Your task to perform on an android device: Show me popular games on the Play Store Image 0: 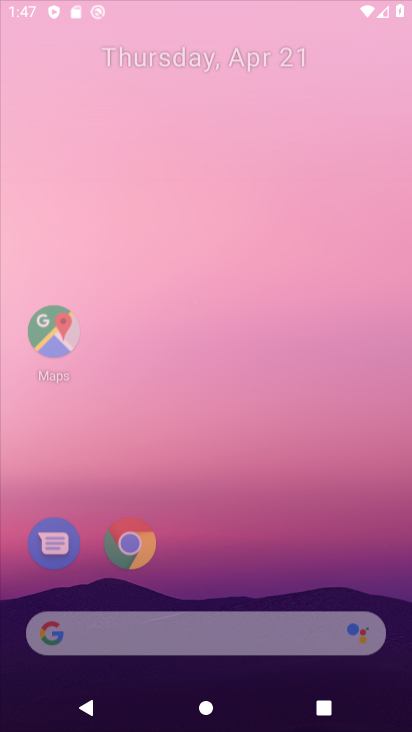
Step 0: drag from (199, 512) to (337, 171)
Your task to perform on an android device: Show me popular games on the Play Store Image 1: 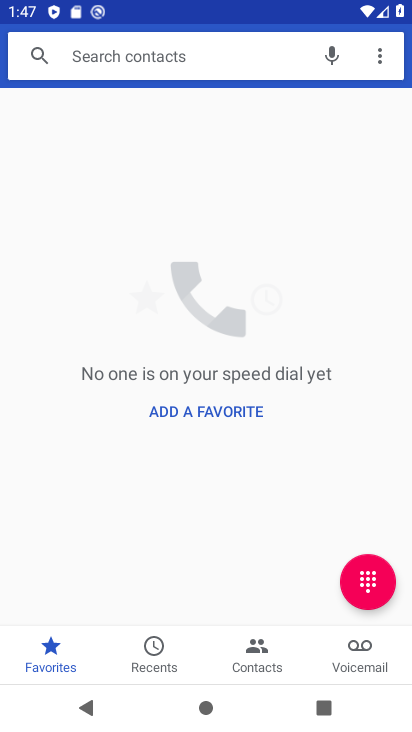
Step 1: press home button
Your task to perform on an android device: Show me popular games on the Play Store Image 2: 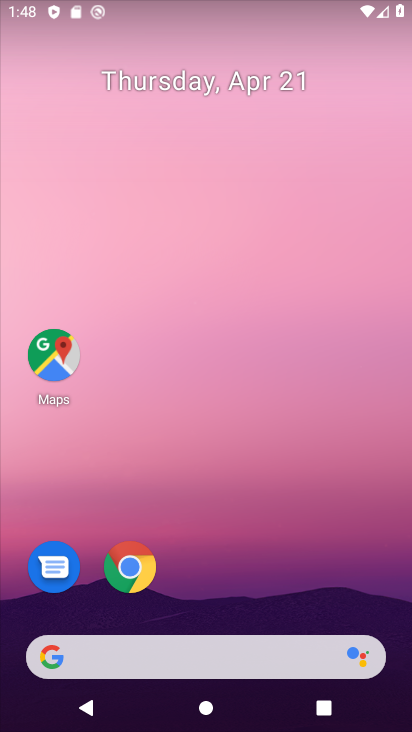
Step 2: drag from (217, 657) to (288, 153)
Your task to perform on an android device: Show me popular games on the Play Store Image 3: 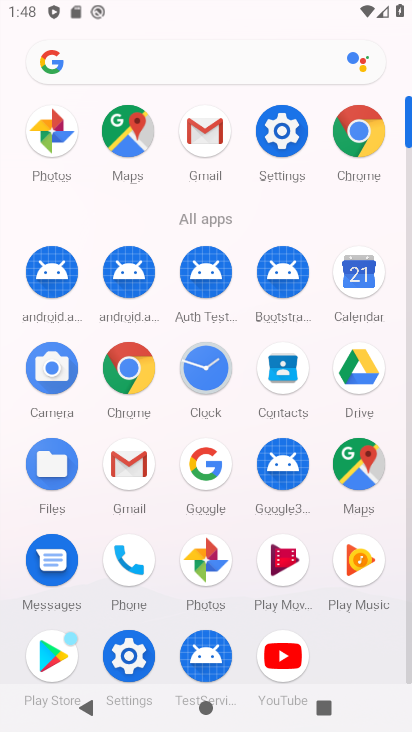
Step 3: click (45, 660)
Your task to perform on an android device: Show me popular games on the Play Store Image 4: 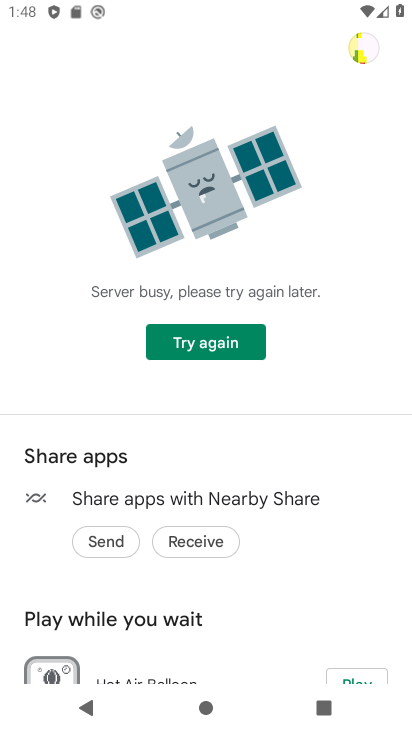
Step 4: task complete